Your task to perform on an android device: add a contact Image 0: 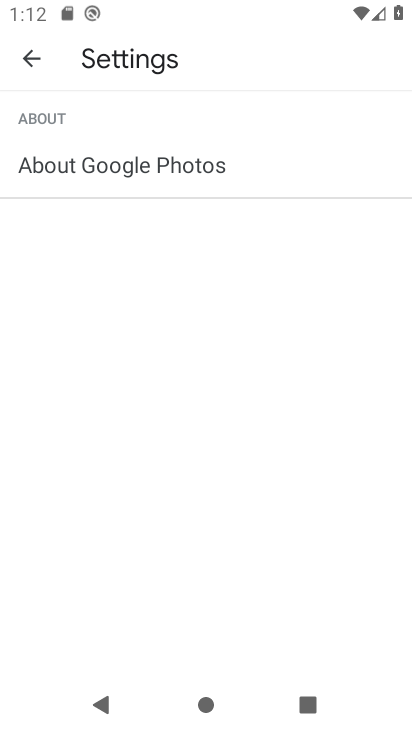
Step 0: press home button
Your task to perform on an android device: add a contact Image 1: 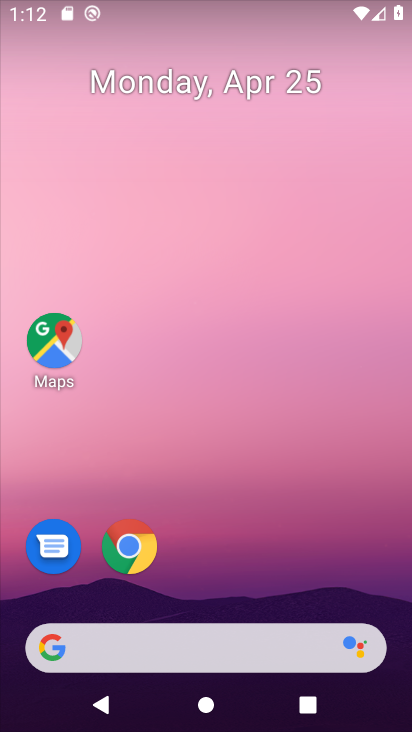
Step 1: drag from (351, 569) to (349, 91)
Your task to perform on an android device: add a contact Image 2: 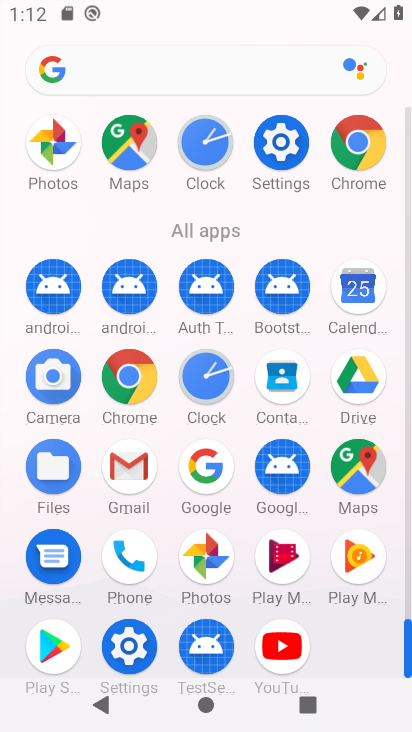
Step 2: click (290, 384)
Your task to perform on an android device: add a contact Image 3: 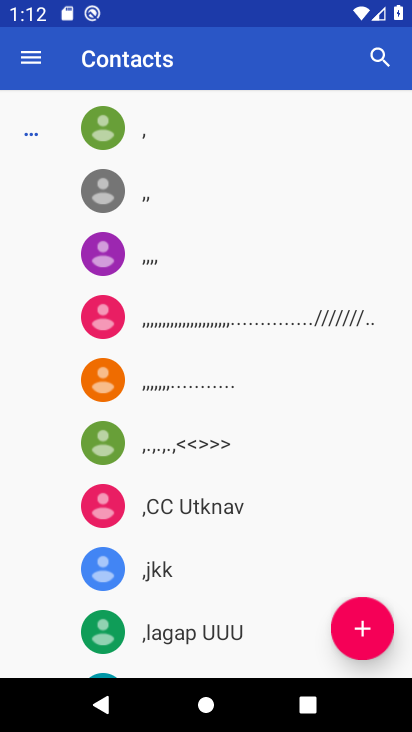
Step 3: click (356, 621)
Your task to perform on an android device: add a contact Image 4: 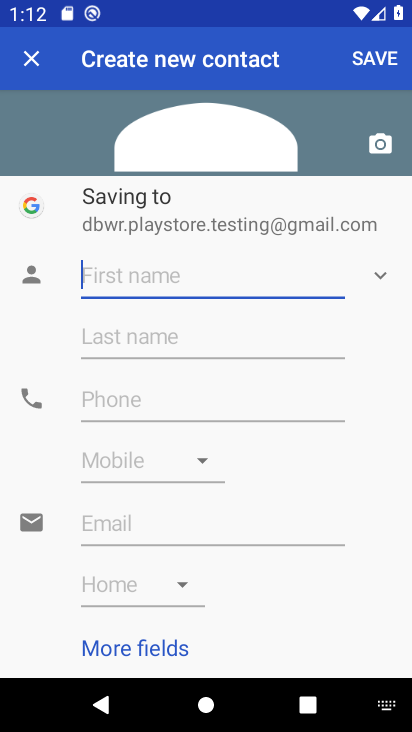
Step 4: click (226, 286)
Your task to perform on an android device: add a contact Image 5: 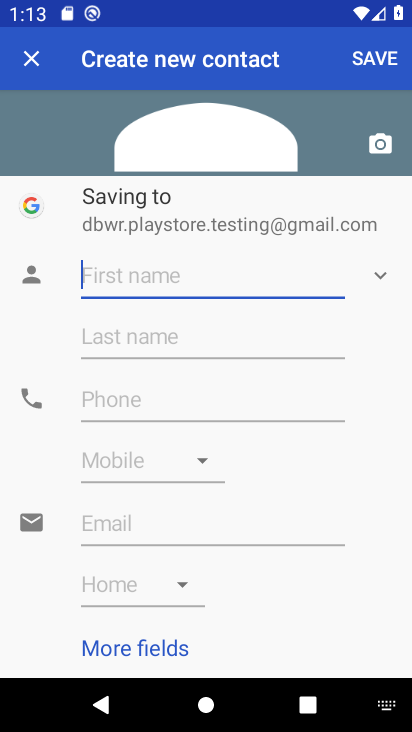
Step 5: type "love1"
Your task to perform on an android device: add a contact Image 6: 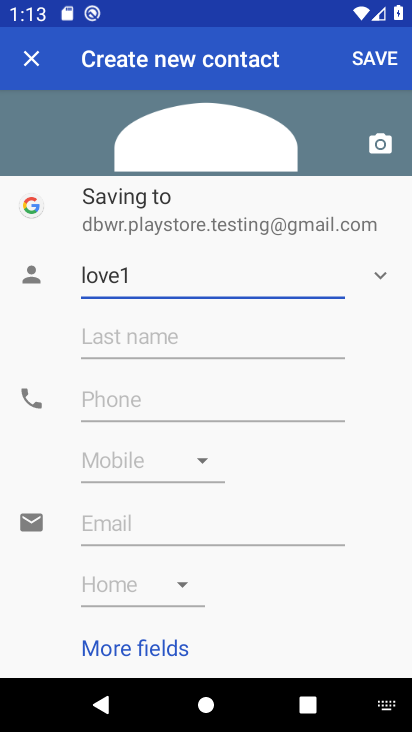
Step 6: click (307, 391)
Your task to perform on an android device: add a contact Image 7: 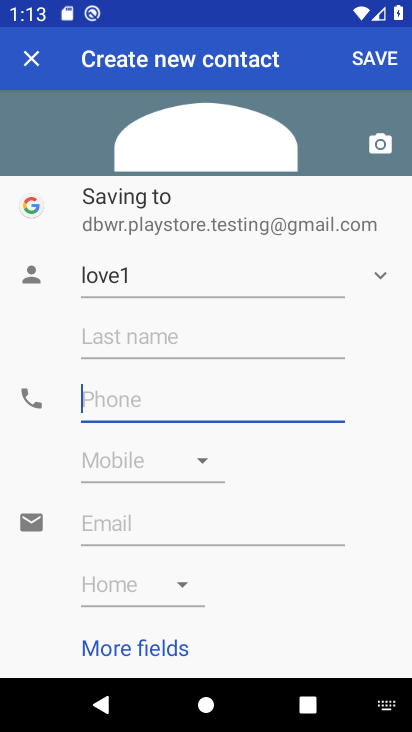
Step 7: type "1234567890"
Your task to perform on an android device: add a contact Image 8: 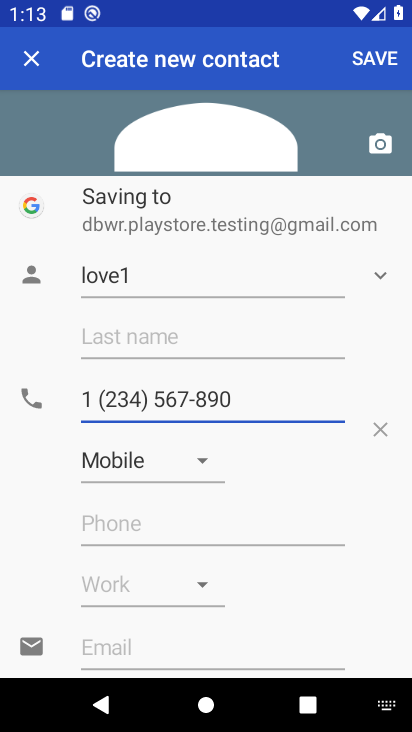
Step 8: click (385, 57)
Your task to perform on an android device: add a contact Image 9: 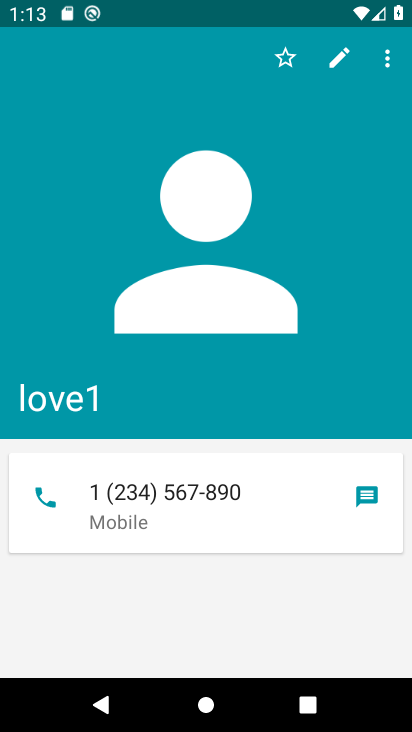
Step 9: task complete